Your task to perform on an android device: What is the recent news? Image 0: 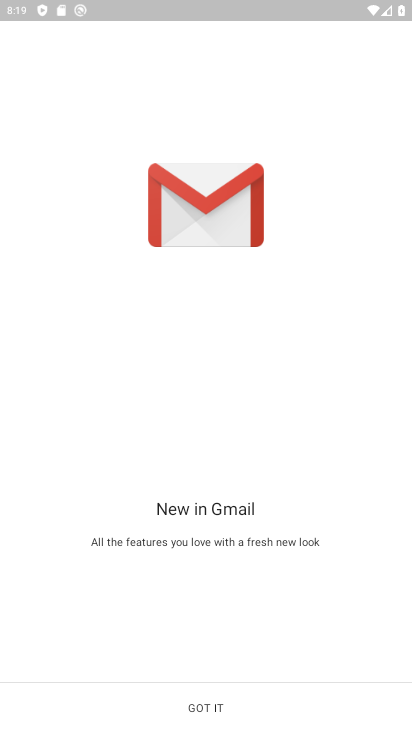
Step 0: press home button
Your task to perform on an android device: What is the recent news? Image 1: 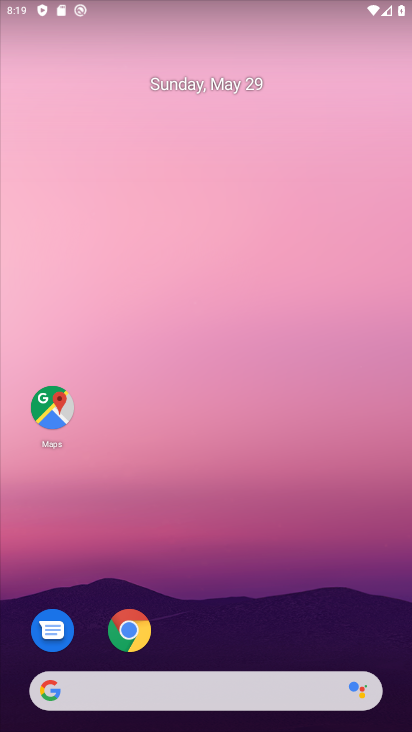
Step 1: task complete